Your task to perform on an android device: When is my next meeting? Image 0: 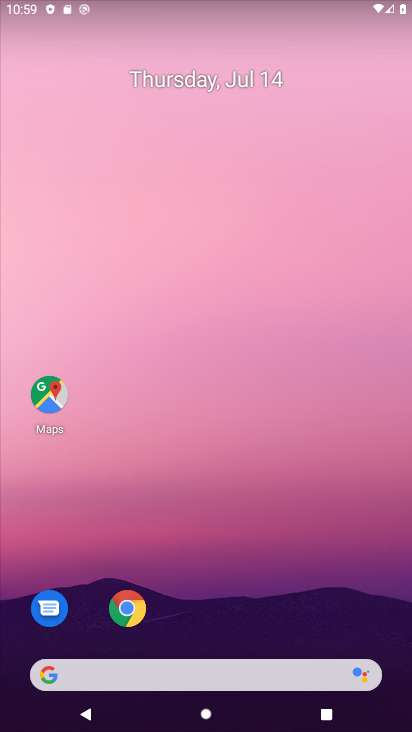
Step 0: drag from (312, 403) to (378, 185)
Your task to perform on an android device: When is my next meeting? Image 1: 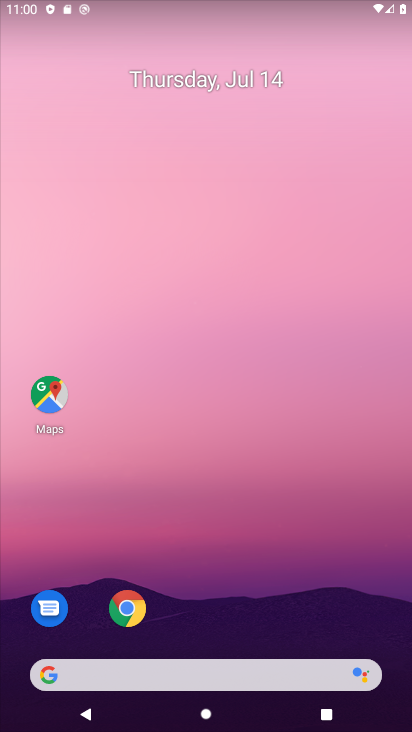
Step 1: drag from (220, 647) to (292, 151)
Your task to perform on an android device: When is my next meeting? Image 2: 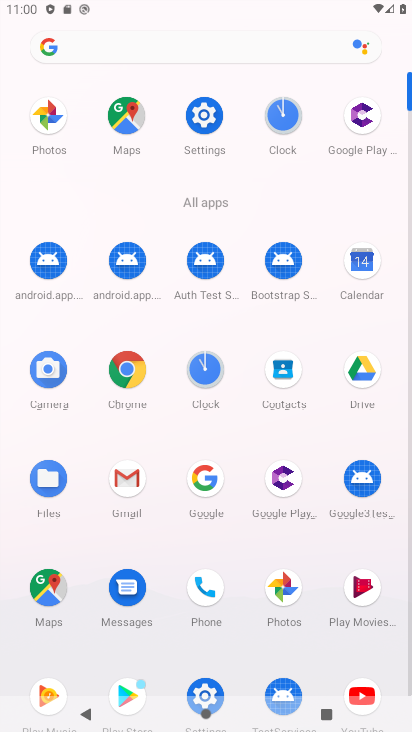
Step 2: click (370, 251)
Your task to perform on an android device: When is my next meeting? Image 3: 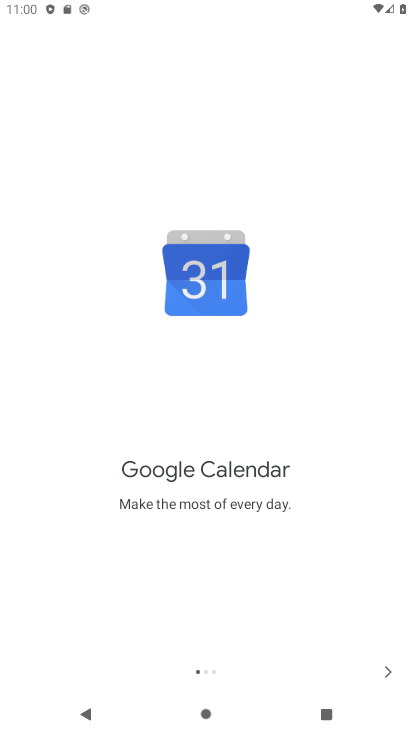
Step 3: click (381, 669)
Your task to perform on an android device: When is my next meeting? Image 4: 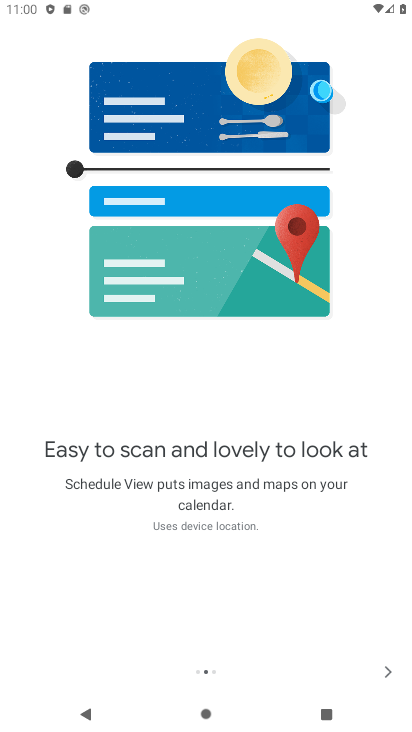
Step 4: click (381, 669)
Your task to perform on an android device: When is my next meeting? Image 5: 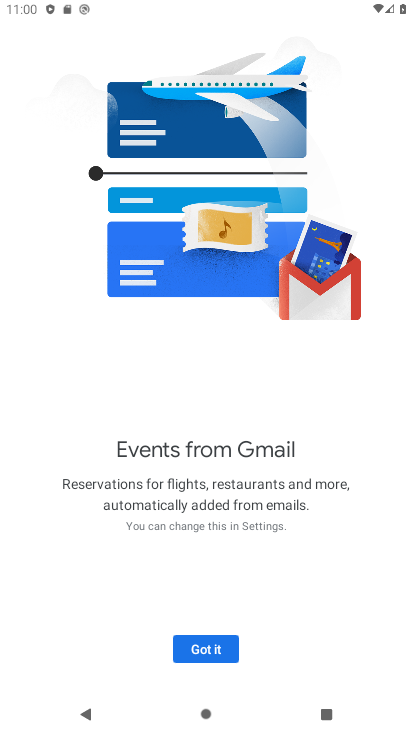
Step 5: press home button
Your task to perform on an android device: When is my next meeting? Image 6: 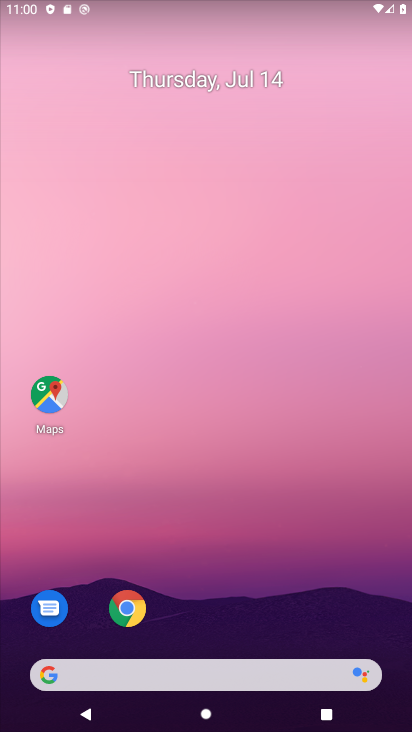
Step 6: drag from (266, 640) to (335, 2)
Your task to perform on an android device: When is my next meeting? Image 7: 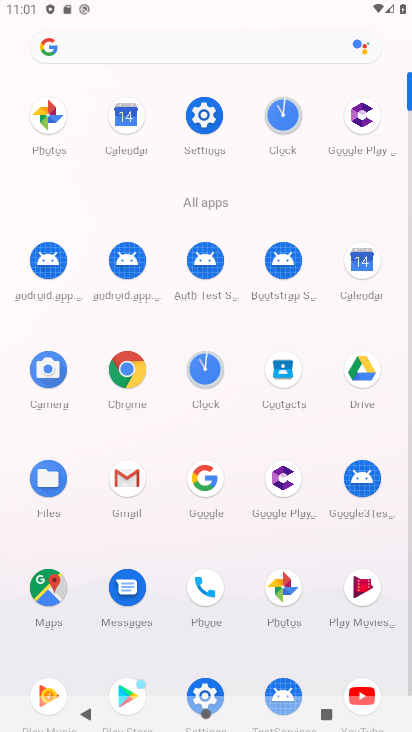
Step 7: click (364, 265)
Your task to perform on an android device: When is my next meeting? Image 8: 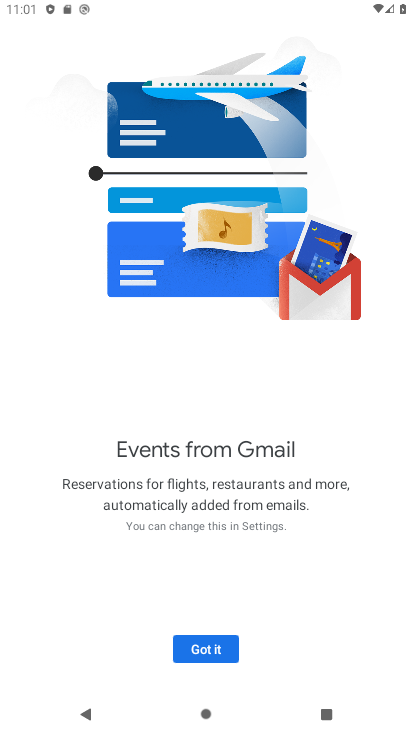
Step 8: click (270, 639)
Your task to perform on an android device: When is my next meeting? Image 9: 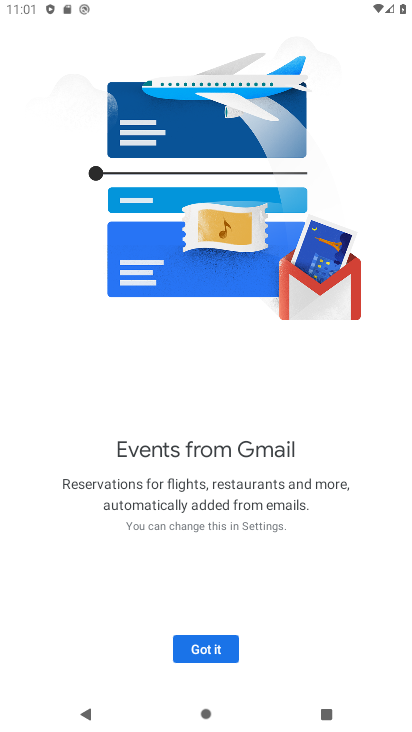
Step 9: task complete